Your task to perform on an android device: turn on wifi Image 0: 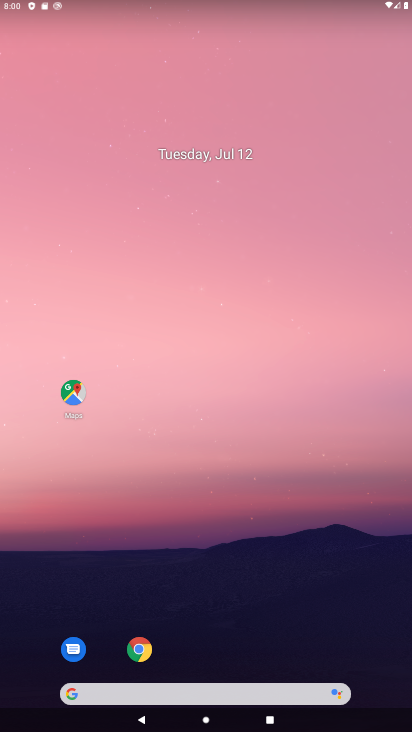
Step 0: drag from (209, 652) to (224, 266)
Your task to perform on an android device: turn on wifi Image 1: 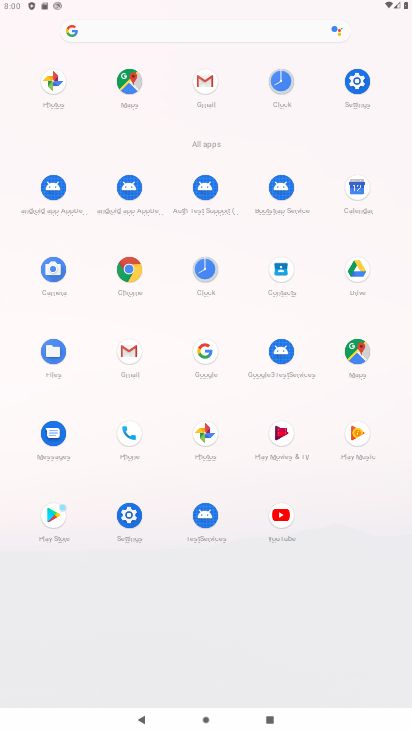
Step 1: click (362, 82)
Your task to perform on an android device: turn on wifi Image 2: 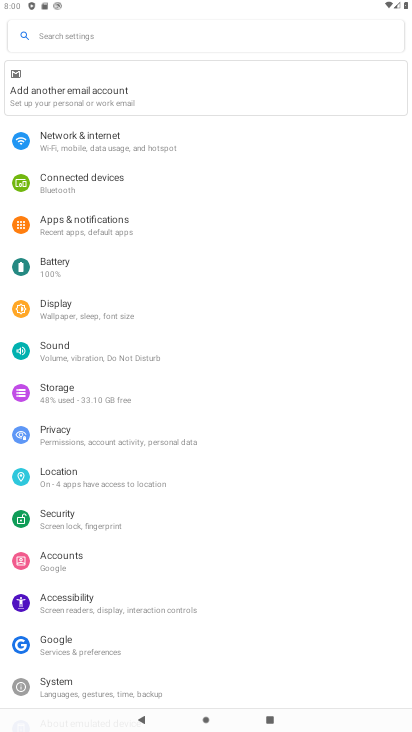
Step 2: click (124, 142)
Your task to perform on an android device: turn on wifi Image 3: 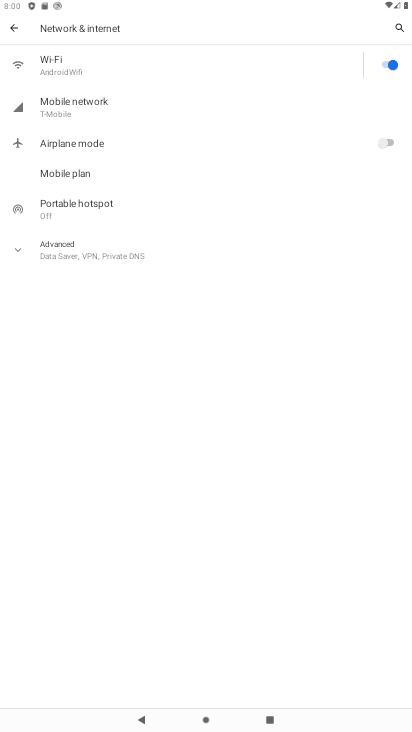
Step 3: task complete